Your task to perform on an android device: Open Google Chrome and click the shortcut for Amazon.com Image 0: 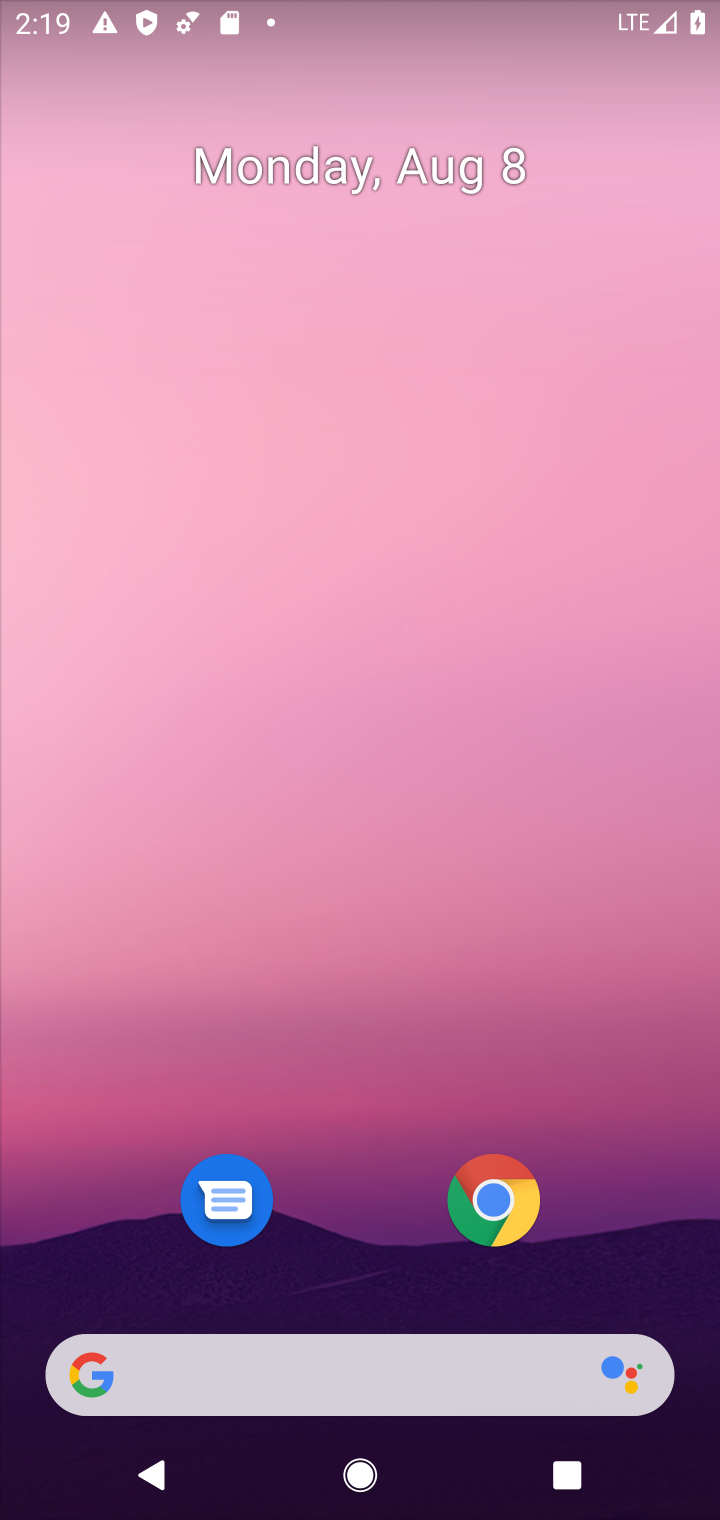
Step 0: click (500, 1213)
Your task to perform on an android device: Open Google Chrome and click the shortcut for Amazon.com Image 1: 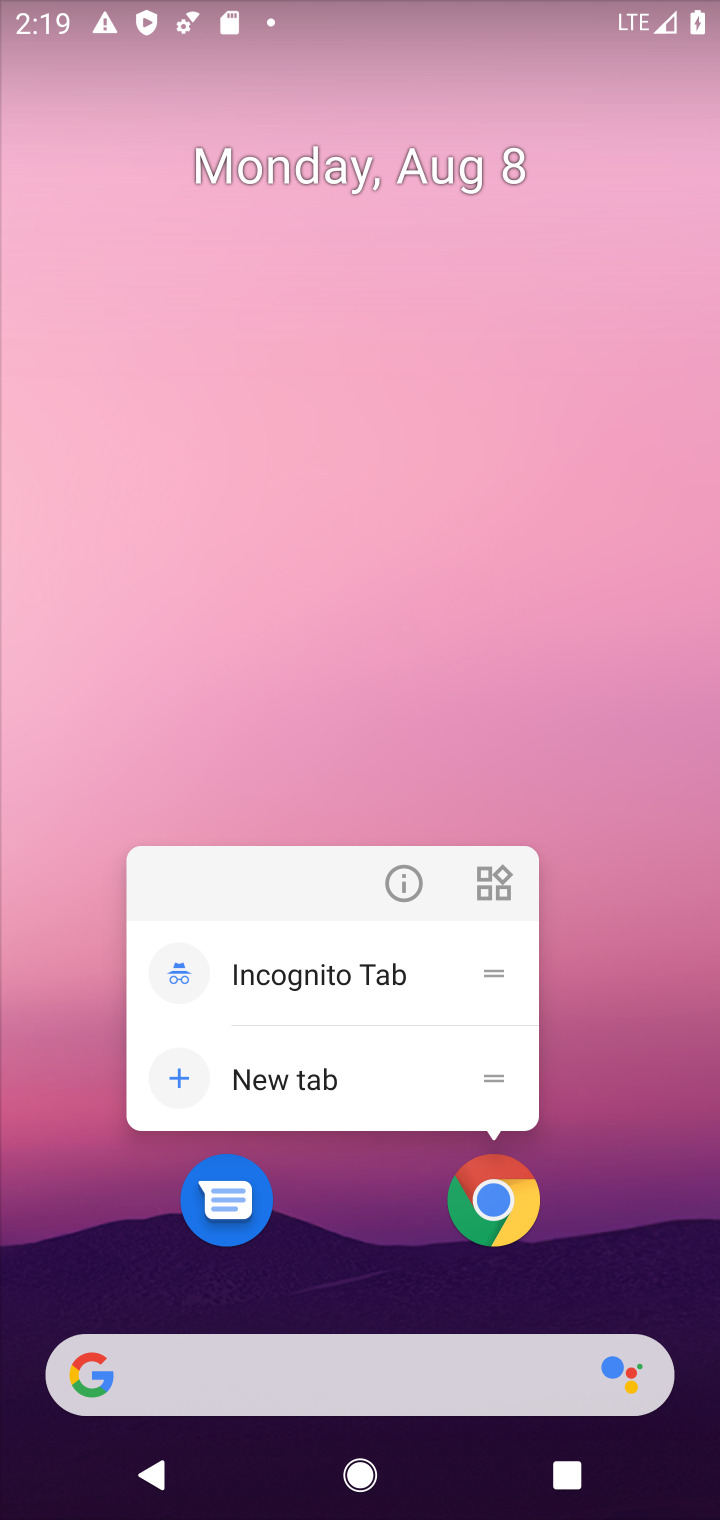
Step 1: click (491, 1213)
Your task to perform on an android device: Open Google Chrome and click the shortcut for Amazon.com Image 2: 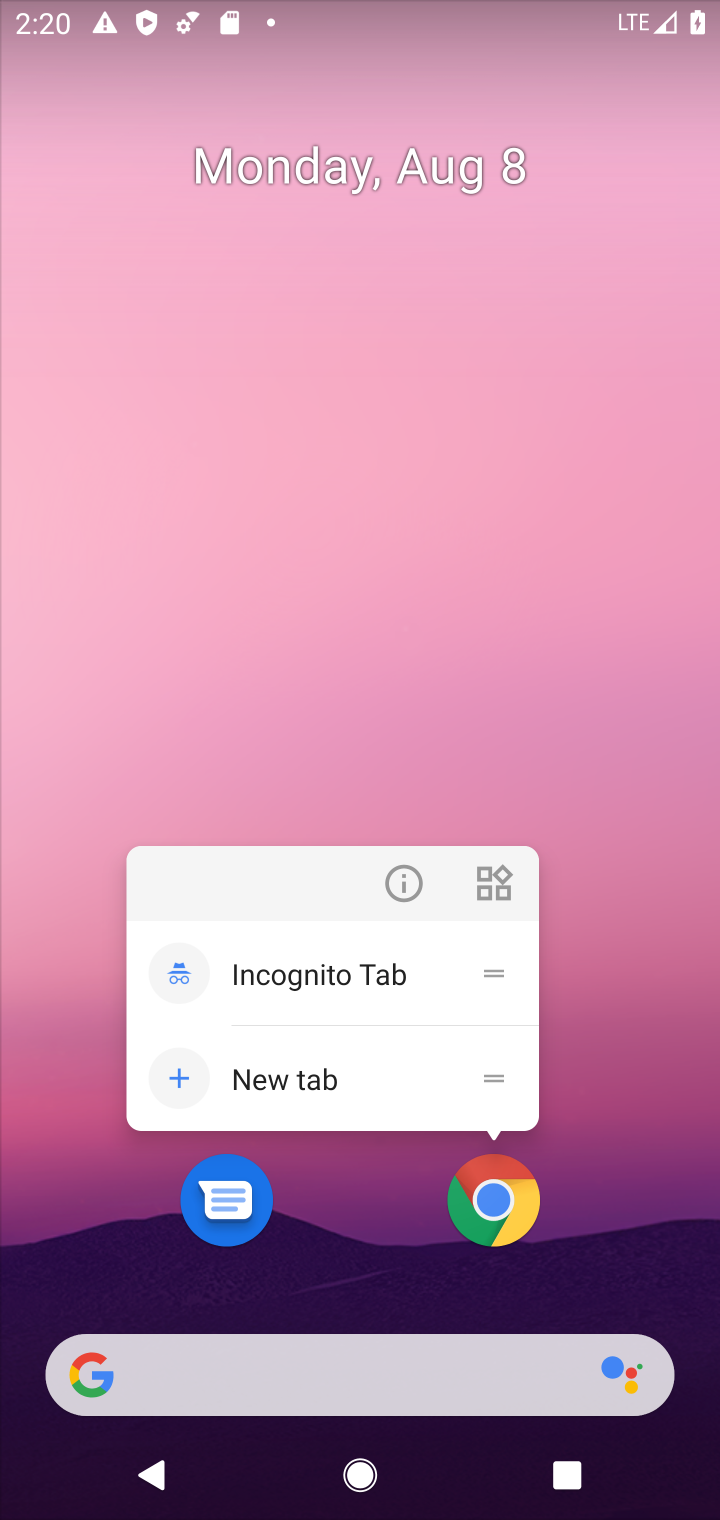
Step 2: click (510, 1225)
Your task to perform on an android device: Open Google Chrome and click the shortcut for Amazon.com Image 3: 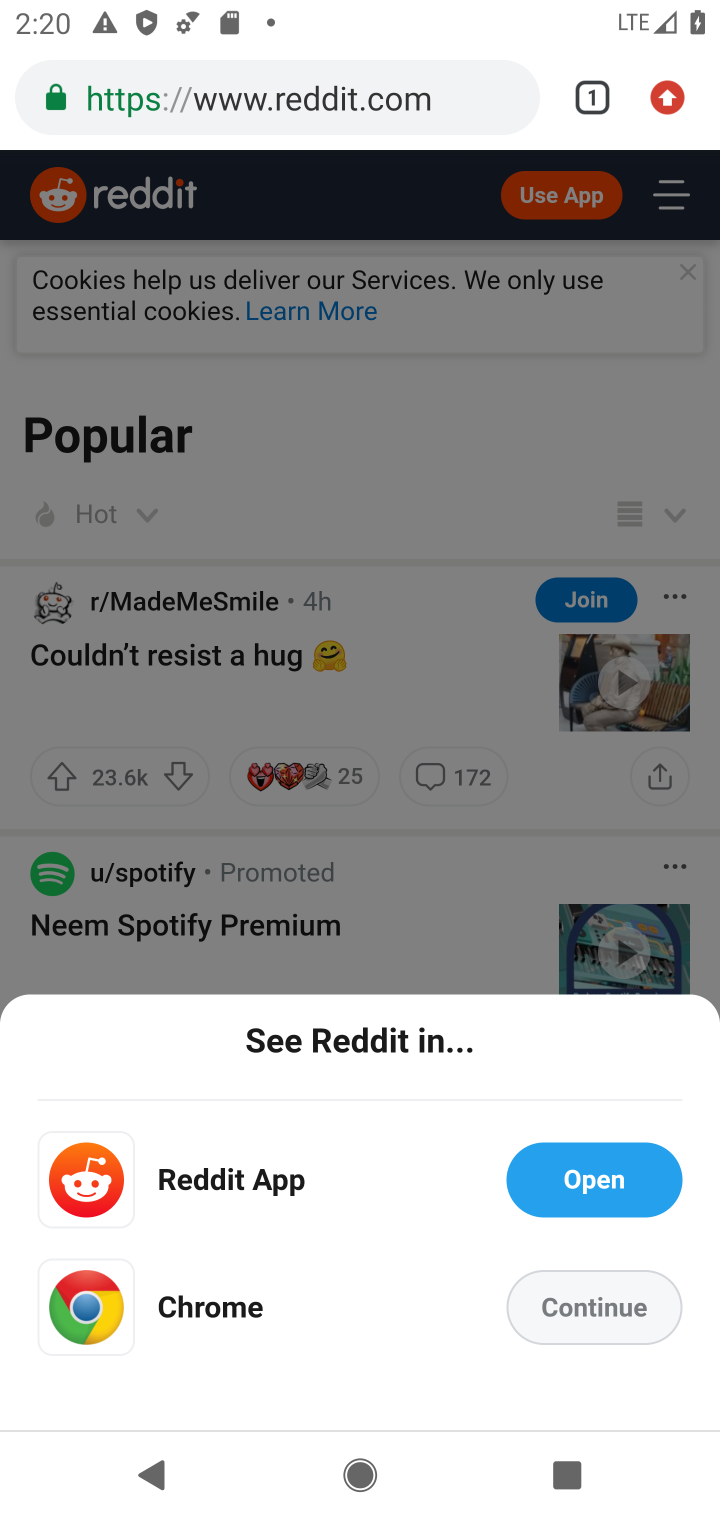
Step 3: click (577, 89)
Your task to perform on an android device: Open Google Chrome and click the shortcut for Amazon.com Image 4: 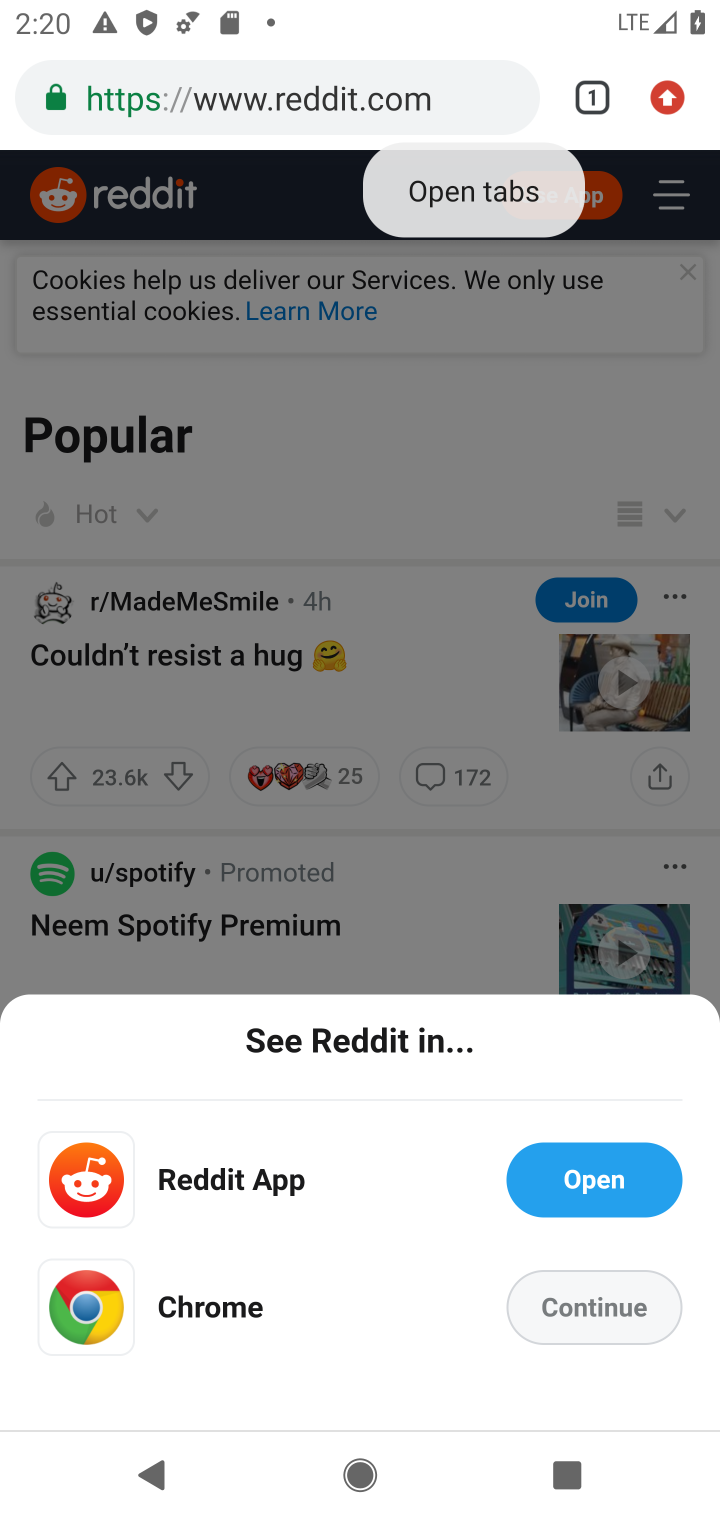
Step 4: click (589, 107)
Your task to perform on an android device: Open Google Chrome and click the shortcut for Amazon.com Image 5: 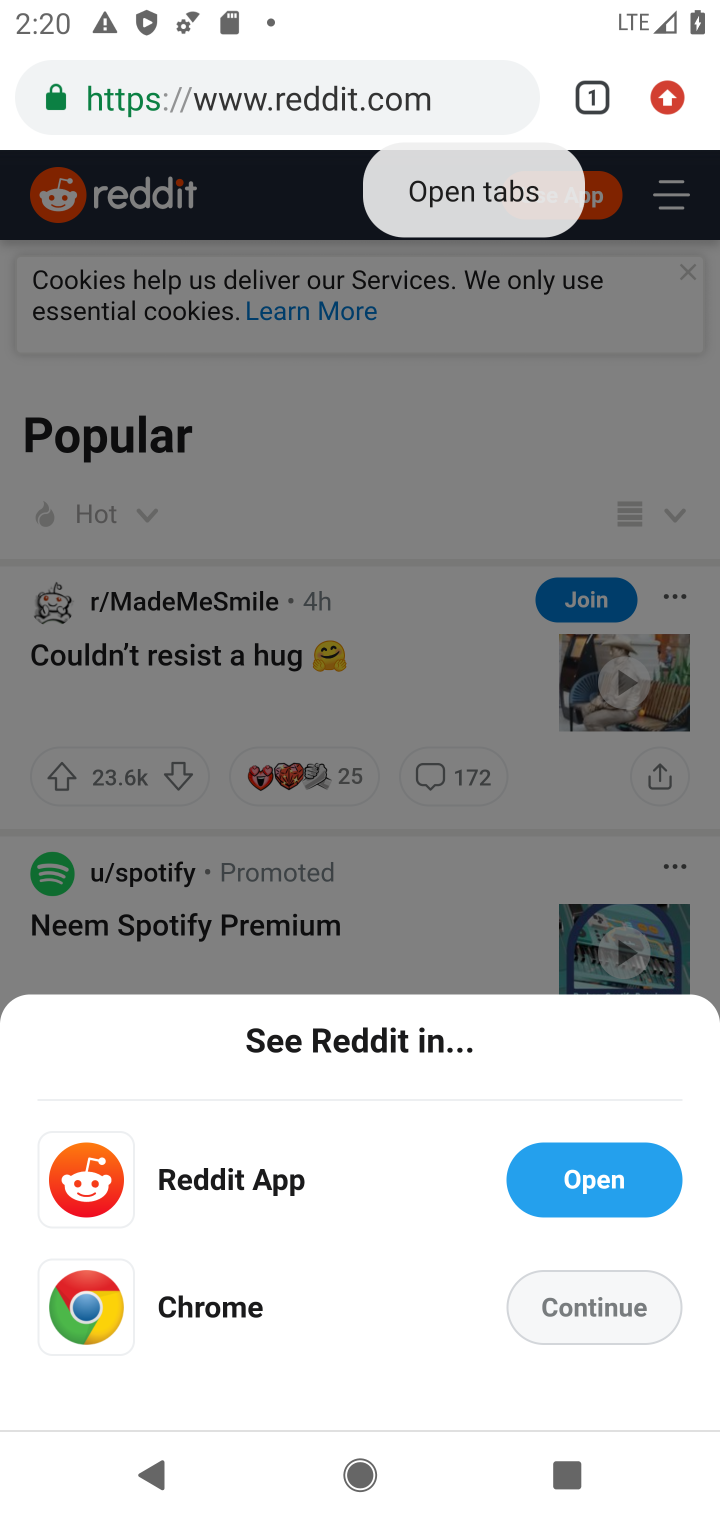
Step 5: click (549, 103)
Your task to perform on an android device: Open Google Chrome and click the shortcut for Amazon.com Image 6: 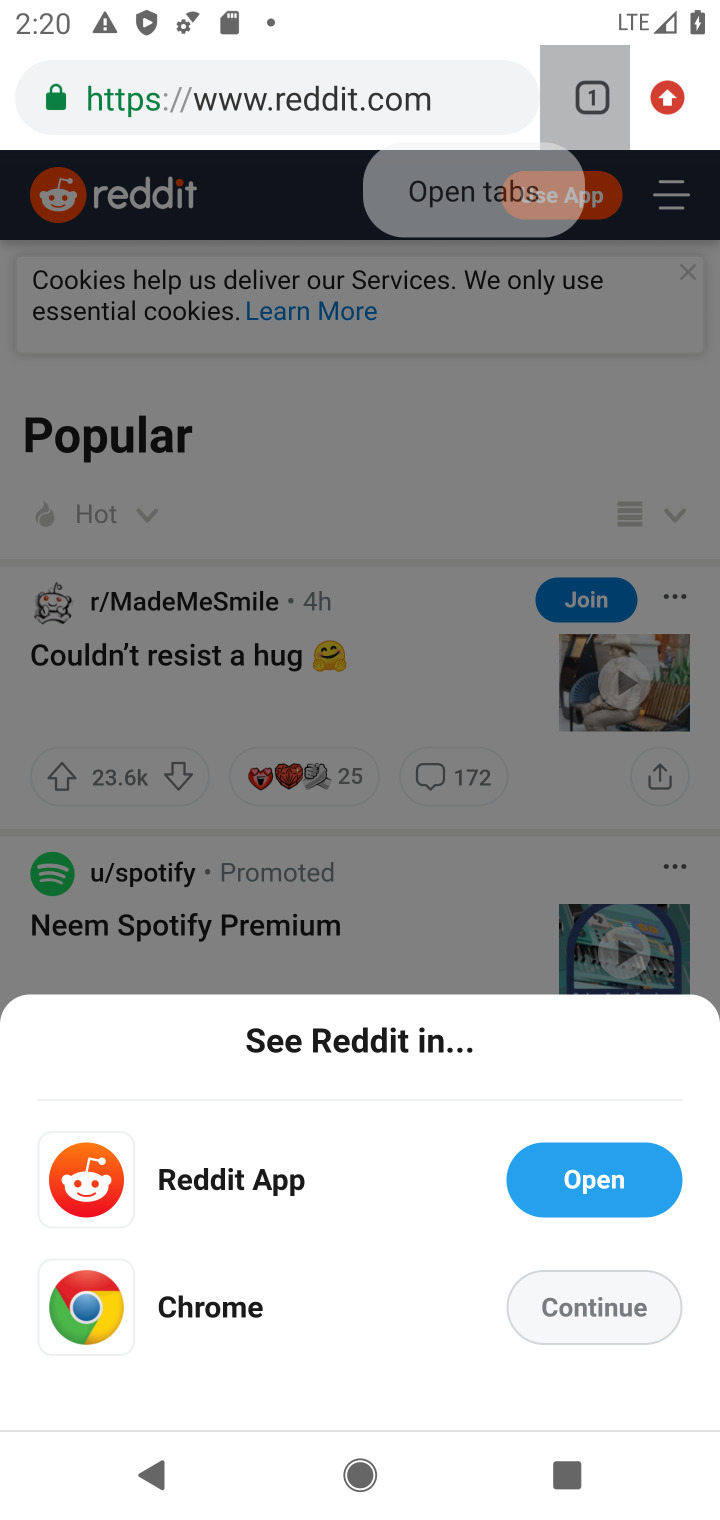
Step 6: click (595, 101)
Your task to perform on an android device: Open Google Chrome and click the shortcut for Amazon.com Image 7: 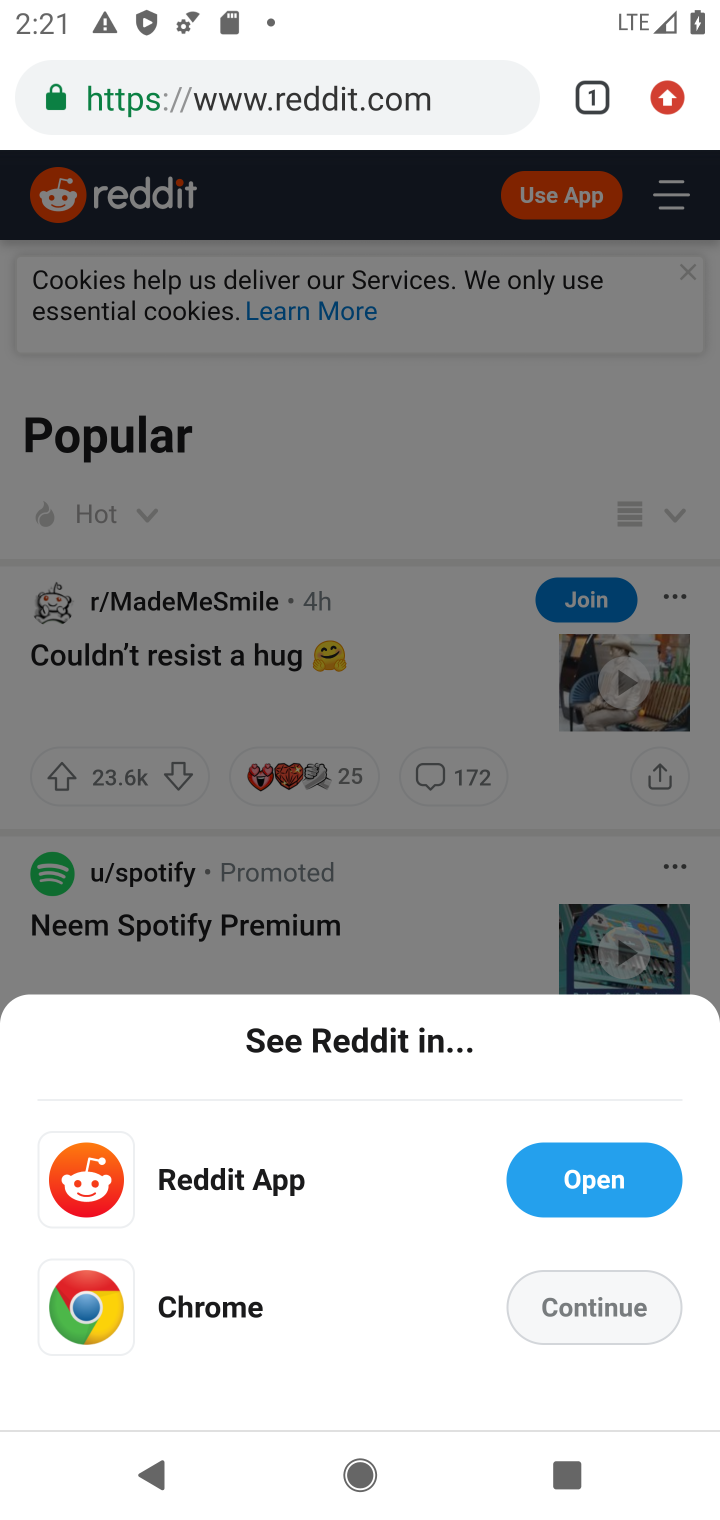
Step 7: click (597, 75)
Your task to perform on an android device: Open Google Chrome and click the shortcut for Amazon.com Image 8: 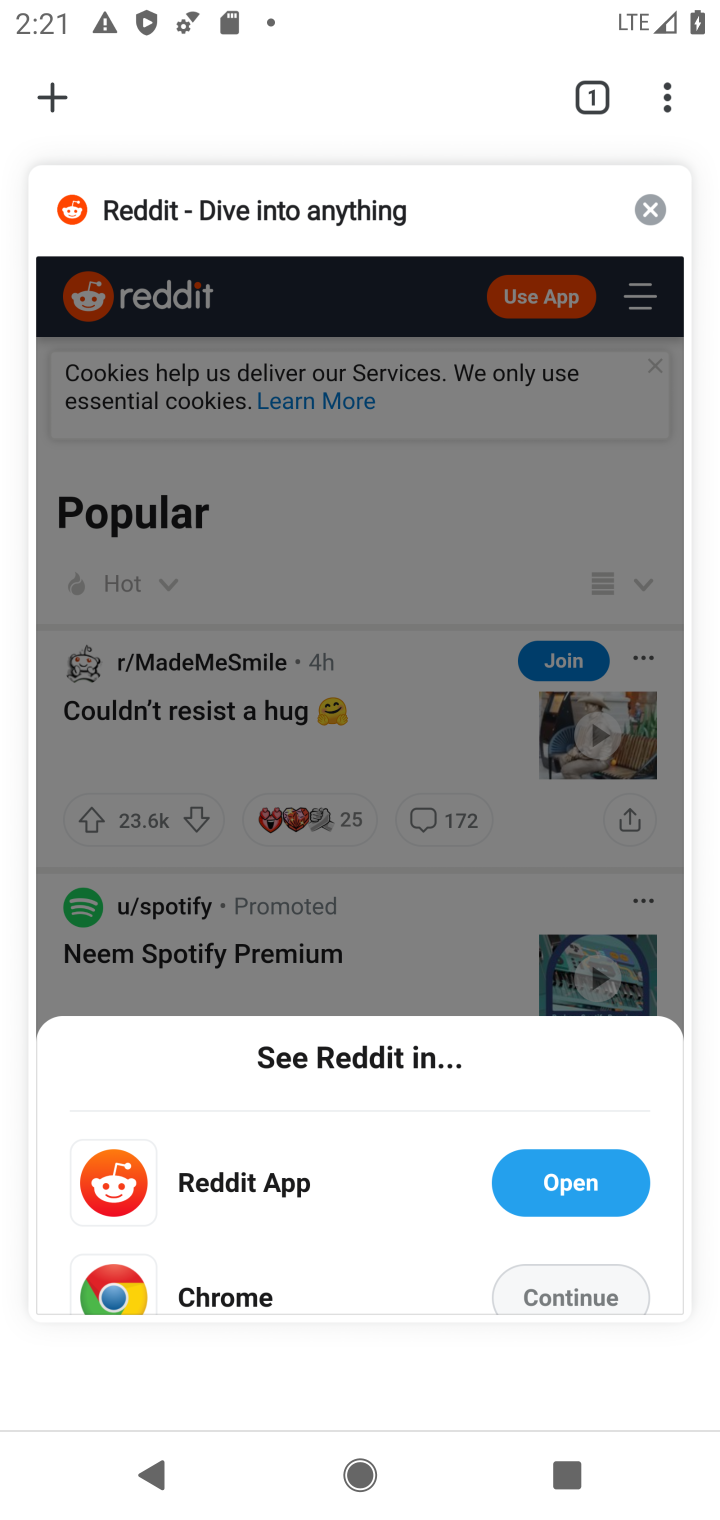
Step 8: click (54, 132)
Your task to perform on an android device: Open Google Chrome and click the shortcut for Amazon.com Image 9: 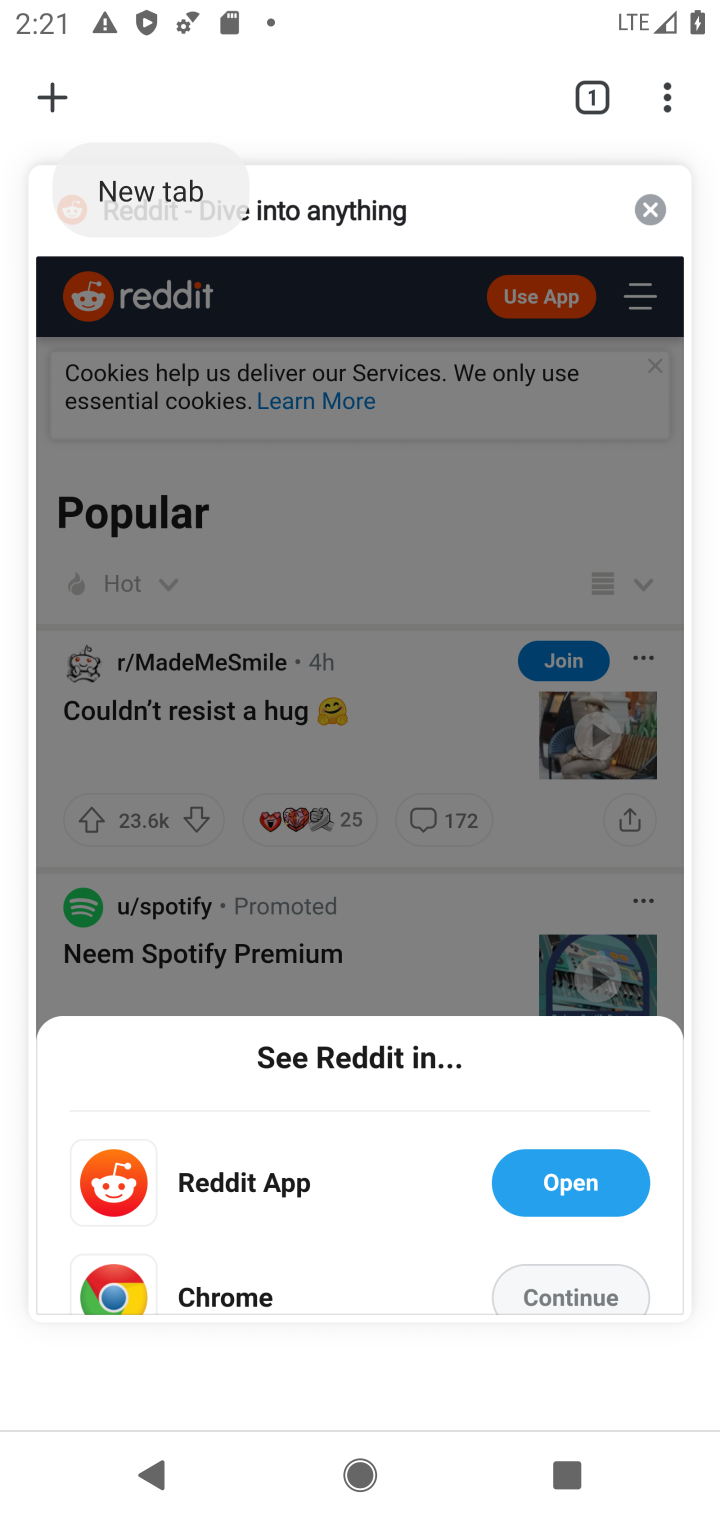
Step 9: click (50, 112)
Your task to perform on an android device: Open Google Chrome and click the shortcut for Amazon.com Image 10: 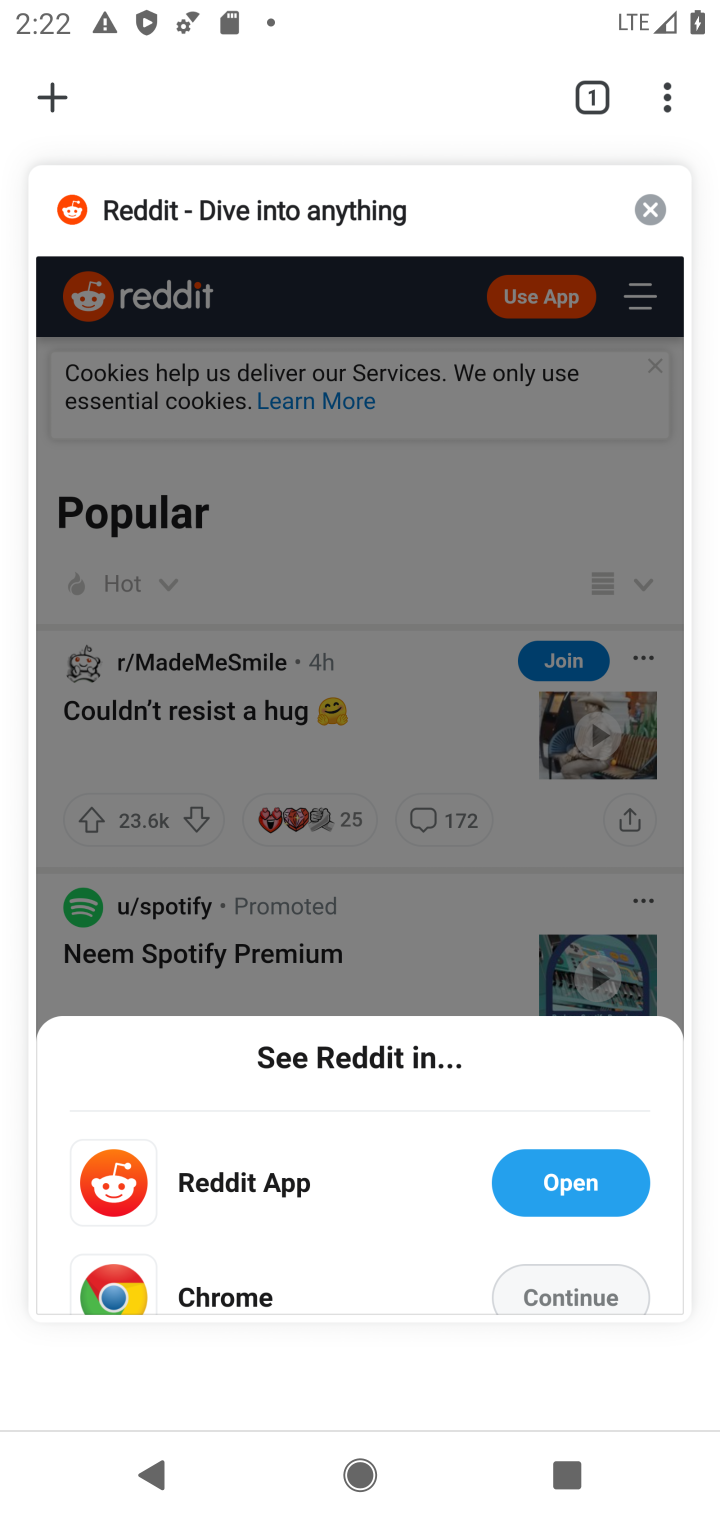
Step 10: click (61, 83)
Your task to perform on an android device: Open Google Chrome and click the shortcut for Amazon.com Image 11: 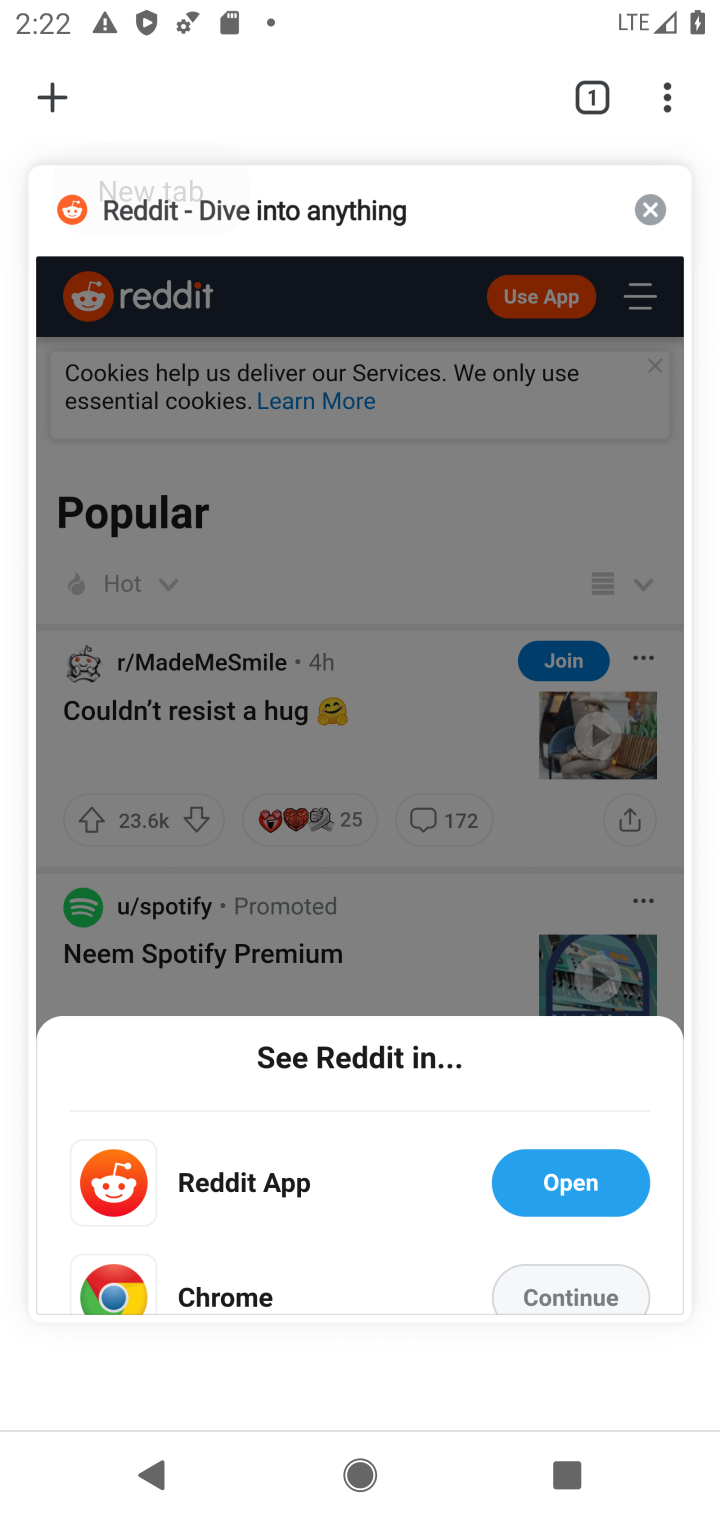
Step 11: click (48, 89)
Your task to perform on an android device: Open Google Chrome and click the shortcut for Amazon.com Image 12: 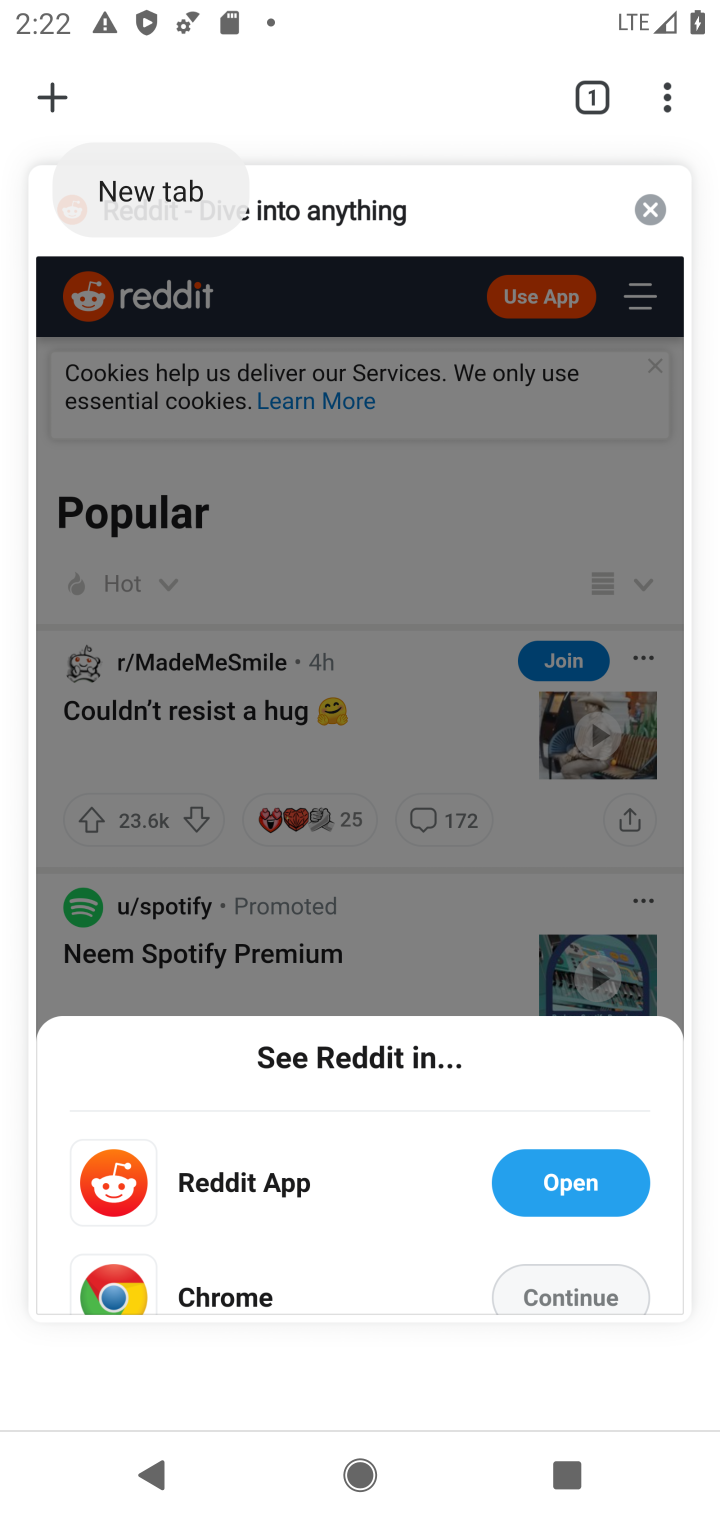
Step 12: click (65, 89)
Your task to perform on an android device: Open Google Chrome and click the shortcut for Amazon.com Image 13: 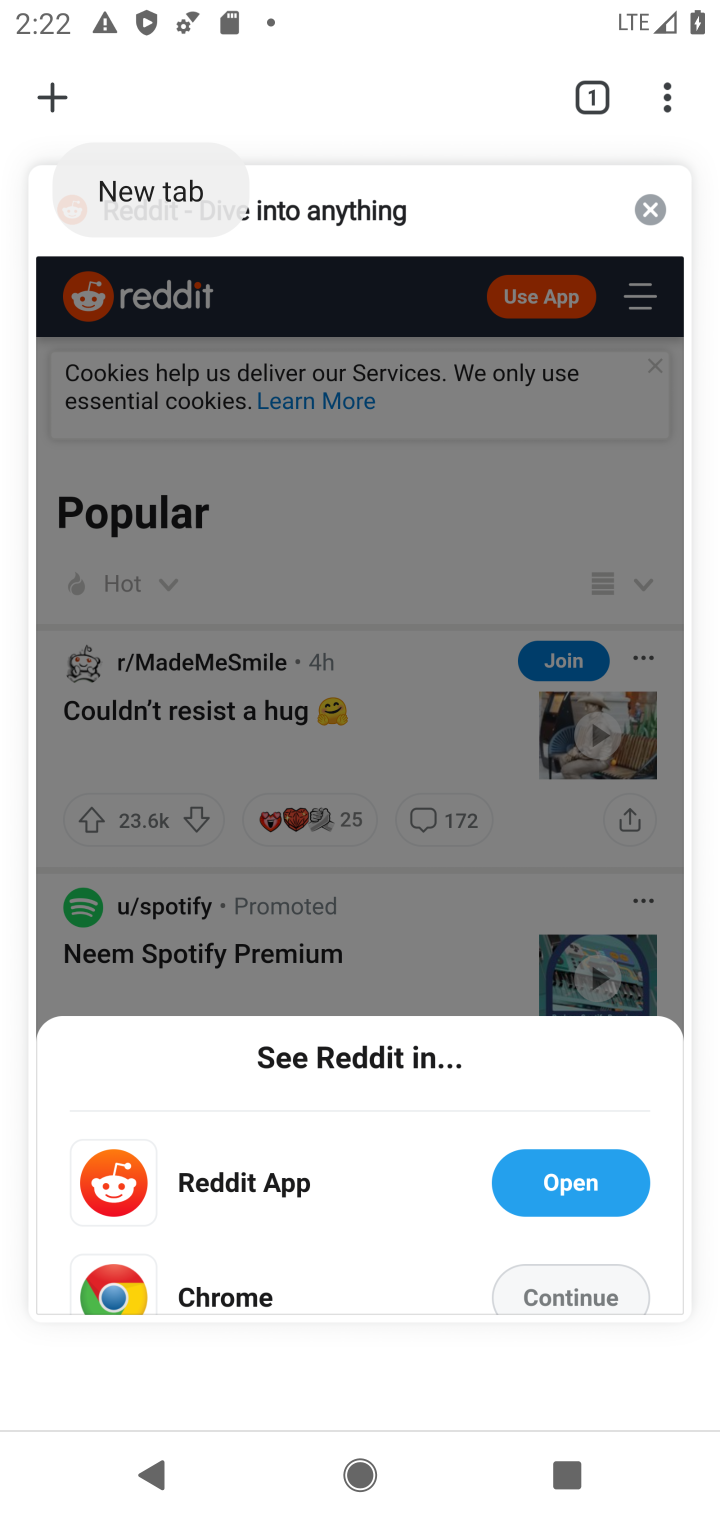
Step 13: click (55, 92)
Your task to perform on an android device: Open Google Chrome and click the shortcut for Amazon.com Image 14: 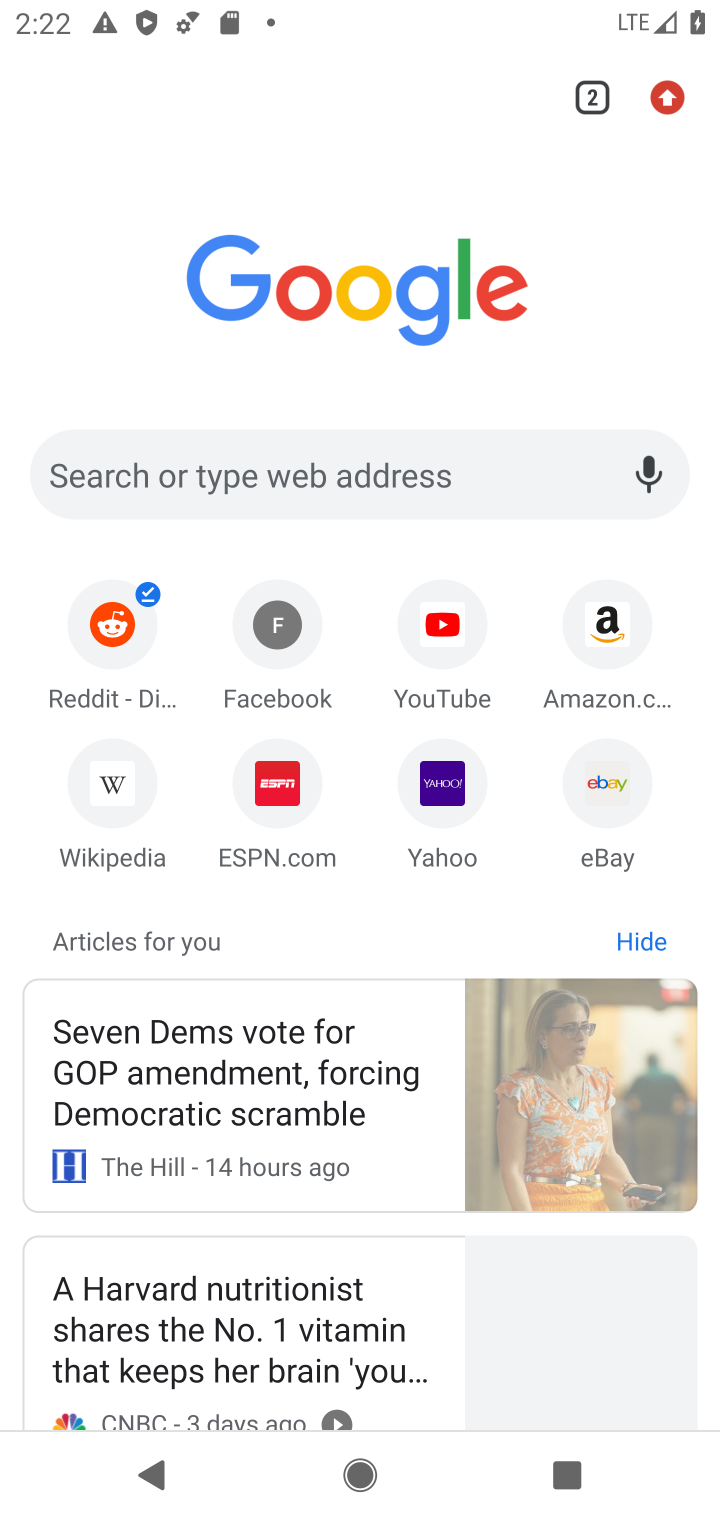
Step 14: click (613, 634)
Your task to perform on an android device: Open Google Chrome and click the shortcut for Amazon.com Image 15: 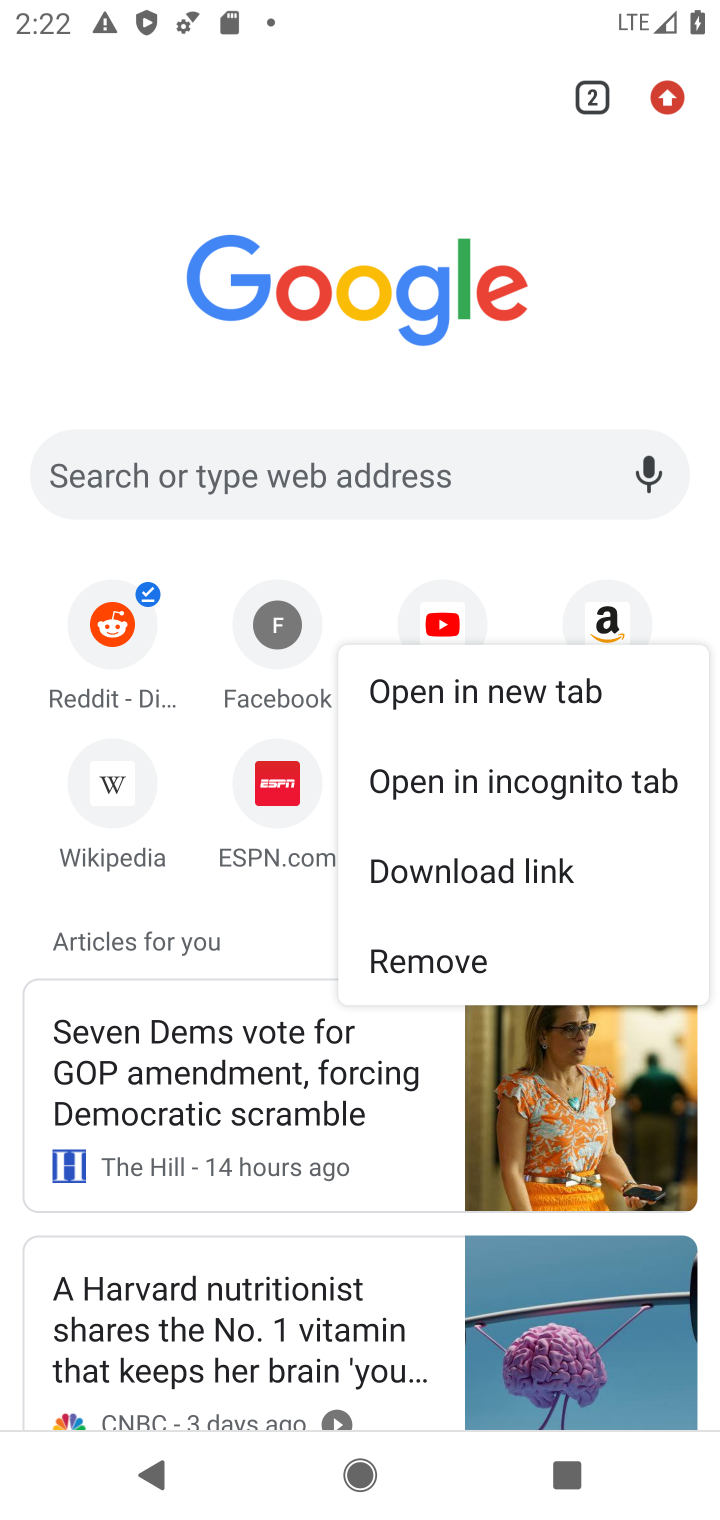
Step 15: click (595, 604)
Your task to perform on an android device: Open Google Chrome and click the shortcut for Amazon.com Image 16: 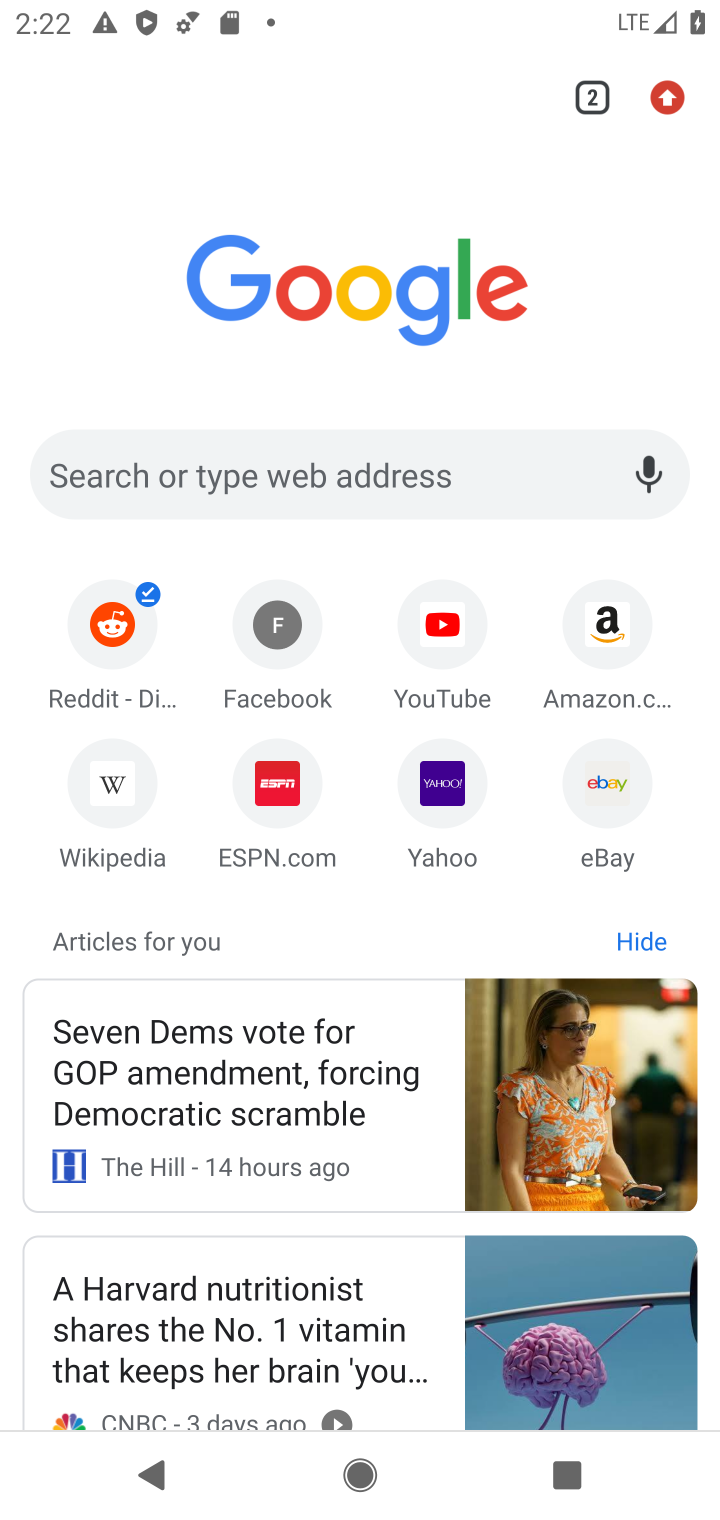
Step 16: click (593, 604)
Your task to perform on an android device: Open Google Chrome and click the shortcut for Amazon.com Image 17: 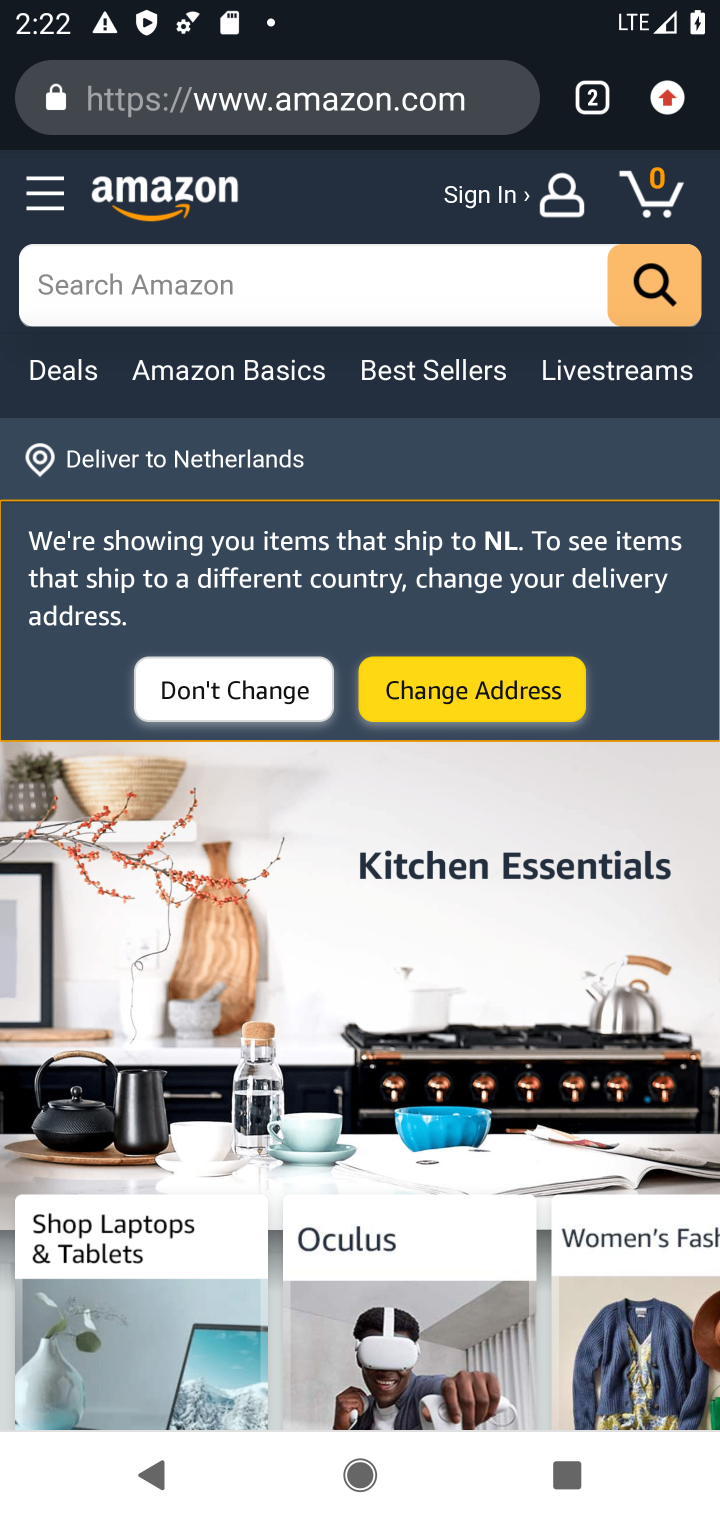
Step 17: task complete